Your task to perform on an android device: all mails in gmail Image 0: 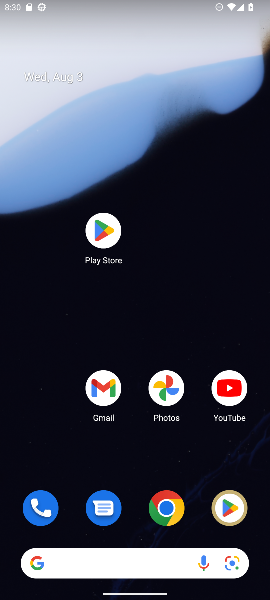
Step 0: drag from (163, 535) to (59, 51)
Your task to perform on an android device: all mails in gmail Image 1: 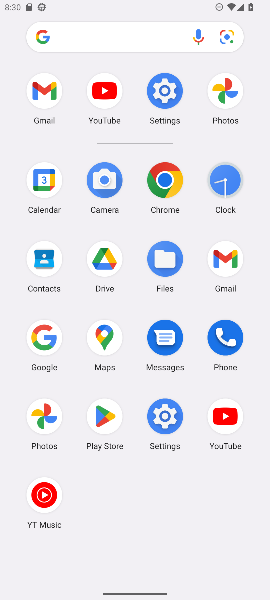
Step 1: click (226, 269)
Your task to perform on an android device: all mails in gmail Image 2: 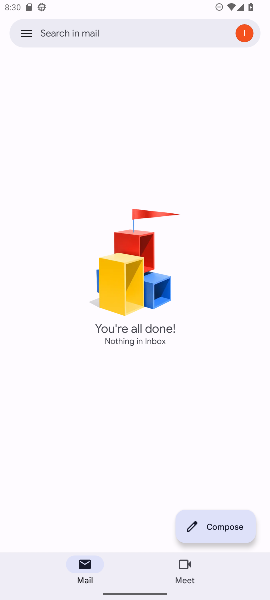
Step 2: click (31, 29)
Your task to perform on an android device: all mails in gmail Image 3: 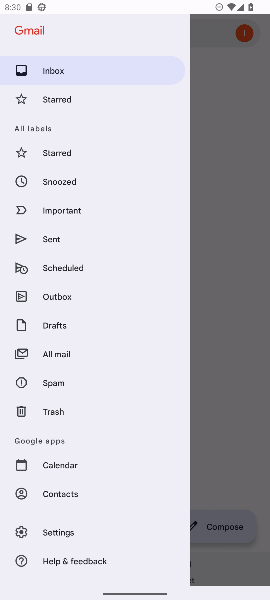
Step 3: click (55, 348)
Your task to perform on an android device: all mails in gmail Image 4: 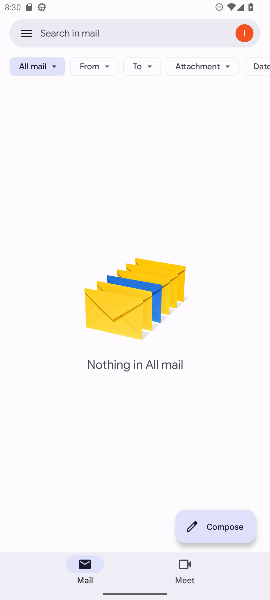
Step 4: task complete